Your task to perform on an android device: What's the weather going to be this weekend? Image 0: 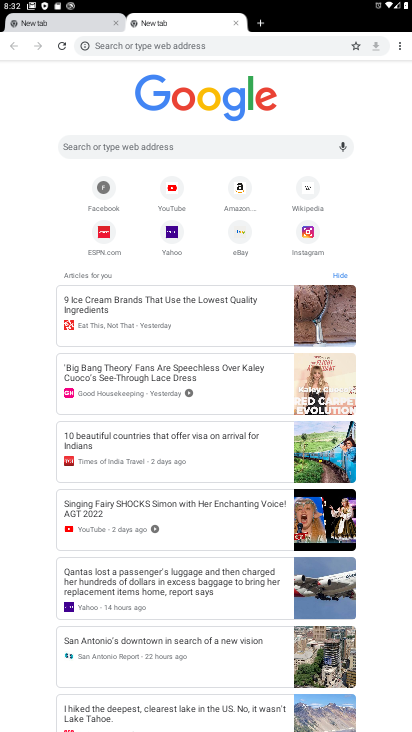
Step 0: press home button
Your task to perform on an android device: What's the weather going to be this weekend? Image 1: 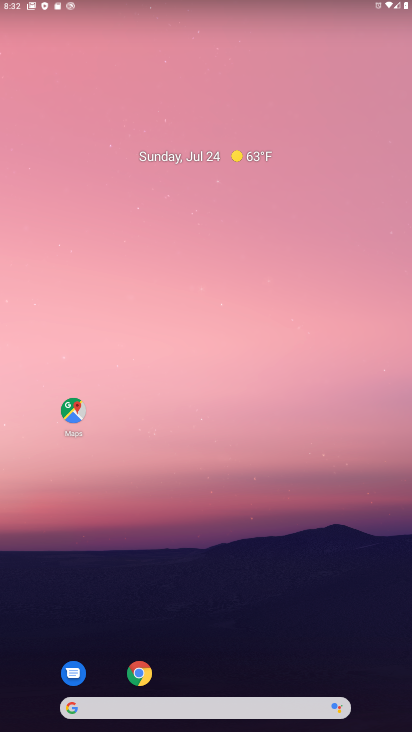
Step 1: drag from (230, 683) to (193, 110)
Your task to perform on an android device: What's the weather going to be this weekend? Image 2: 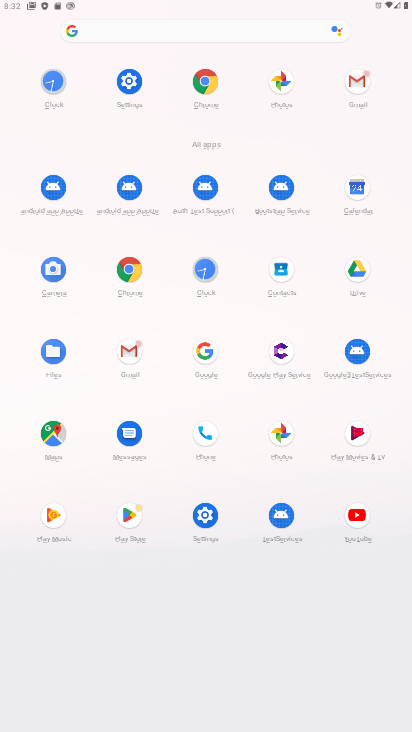
Step 2: click (201, 352)
Your task to perform on an android device: What's the weather going to be this weekend? Image 3: 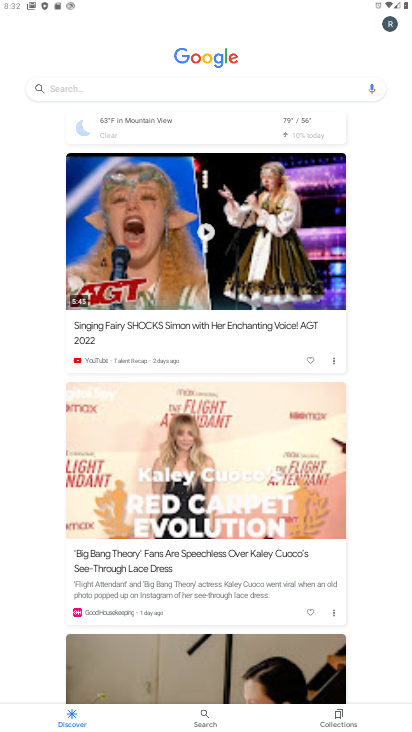
Step 3: click (115, 91)
Your task to perform on an android device: What's the weather going to be this weekend? Image 4: 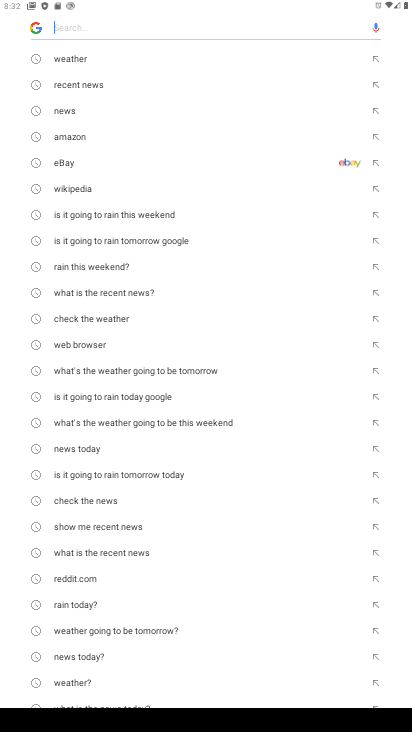
Step 4: click (78, 59)
Your task to perform on an android device: What's the weather going to be this weekend? Image 5: 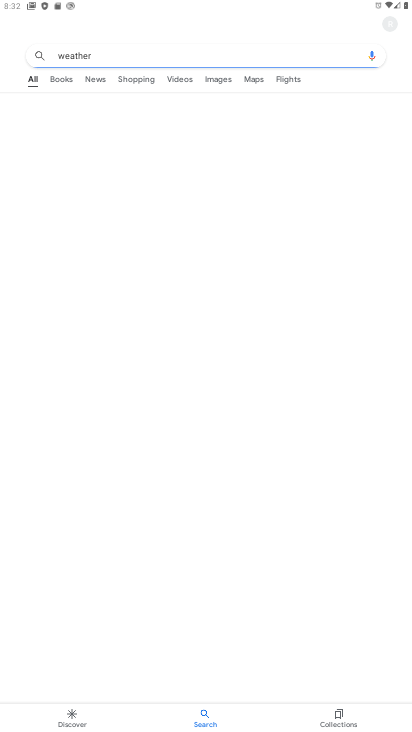
Step 5: task complete